Your task to perform on an android device: Open Chrome and go to settings Image 0: 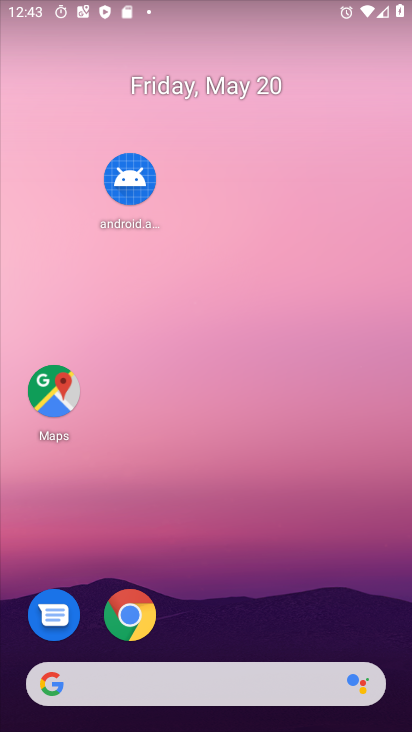
Step 0: click (146, 617)
Your task to perform on an android device: Open Chrome and go to settings Image 1: 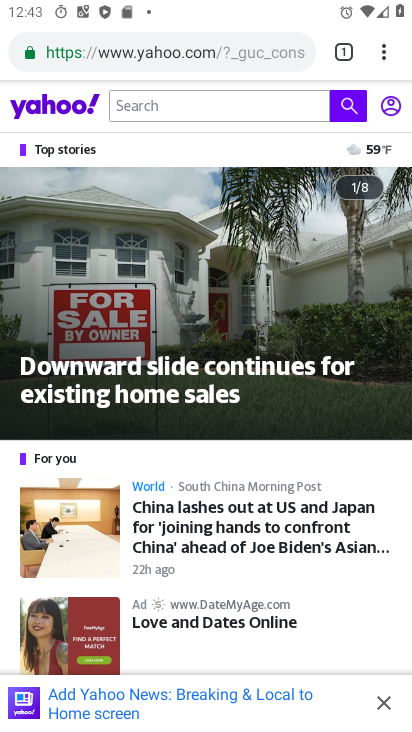
Step 1: click (383, 41)
Your task to perform on an android device: Open Chrome and go to settings Image 2: 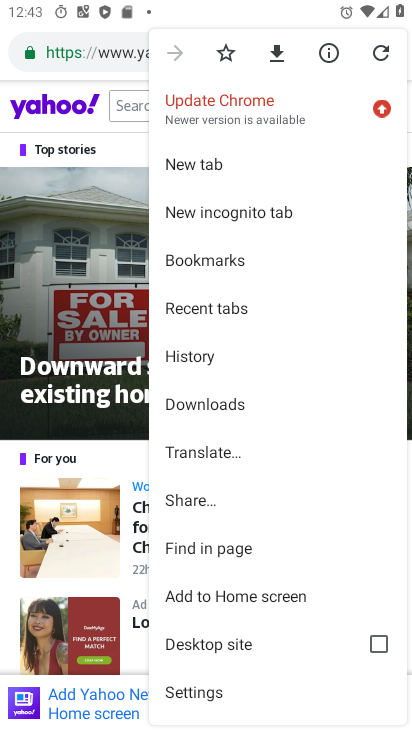
Step 2: click (204, 695)
Your task to perform on an android device: Open Chrome and go to settings Image 3: 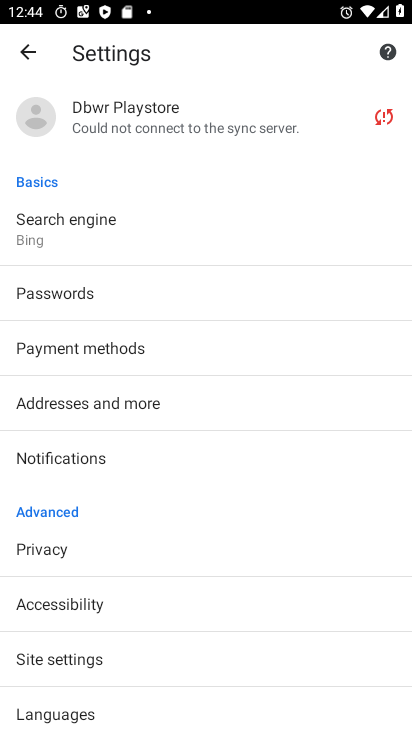
Step 3: task complete